Your task to perform on an android device: Go to privacy settings Image 0: 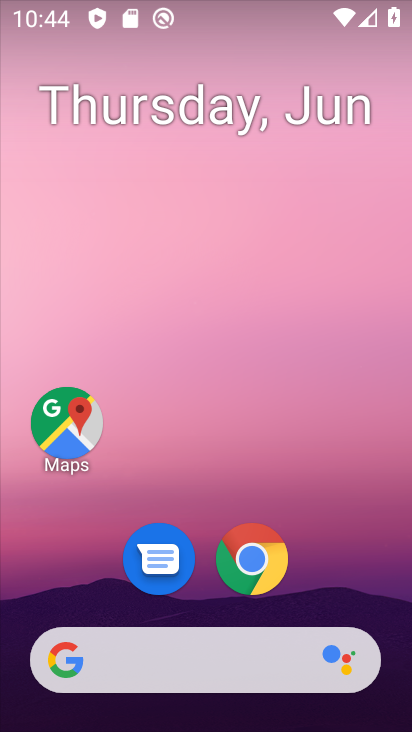
Step 0: click (279, 575)
Your task to perform on an android device: Go to privacy settings Image 1: 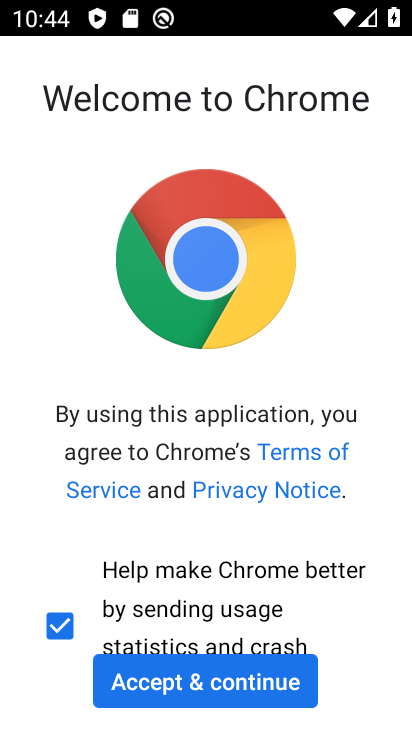
Step 1: click (230, 682)
Your task to perform on an android device: Go to privacy settings Image 2: 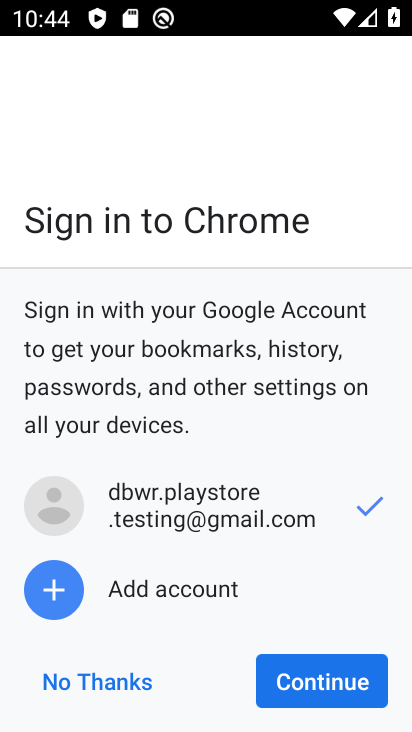
Step 2: click (365, 701)
Your task to perform on an android device: Go to privacy settings Image 3: 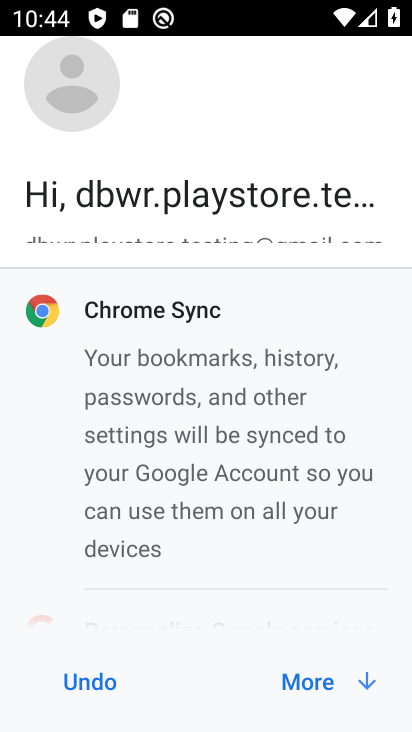
Step 3: click (351, 690)
Your task to perform on an android device: Go to privacy settings Image 4: 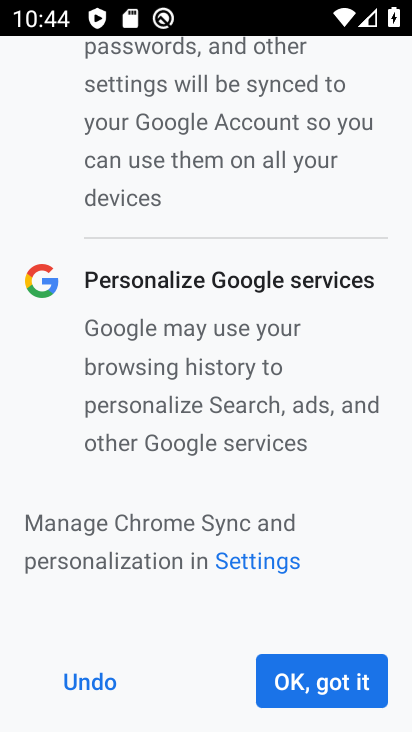
Step 4: click (334, 689)
Your task to perform on an android device: Go to privacy settings Image 5: 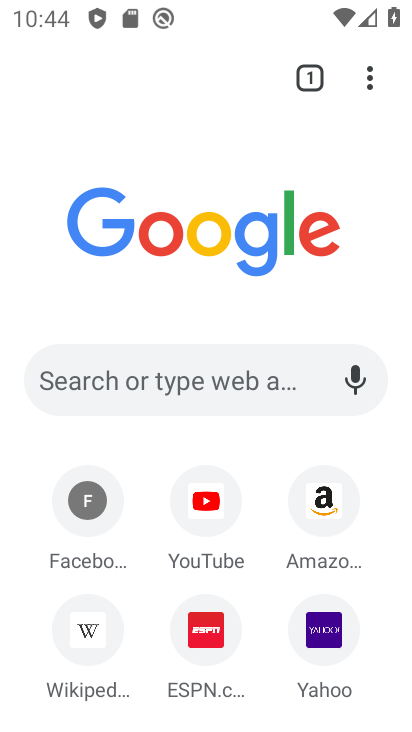
Step 5: drag from (381, 79) to (261, 641)
Your task to perform on an android device: Go to privacy settings Image 6: 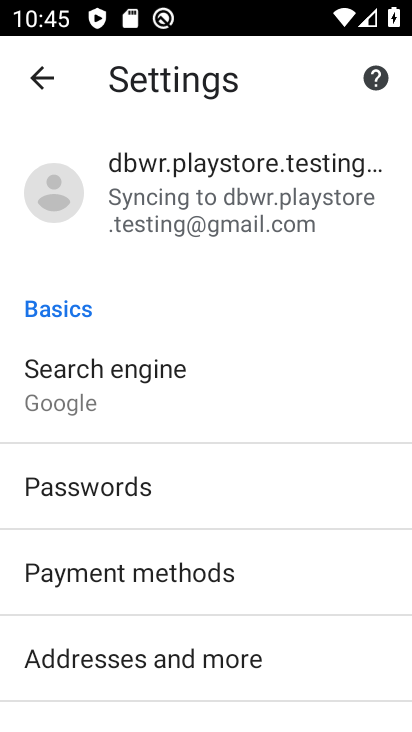
Step 6: drag from (252, 642) to (348, 279)
Your task to perform on an android device: Go to privacy settings Image 7: 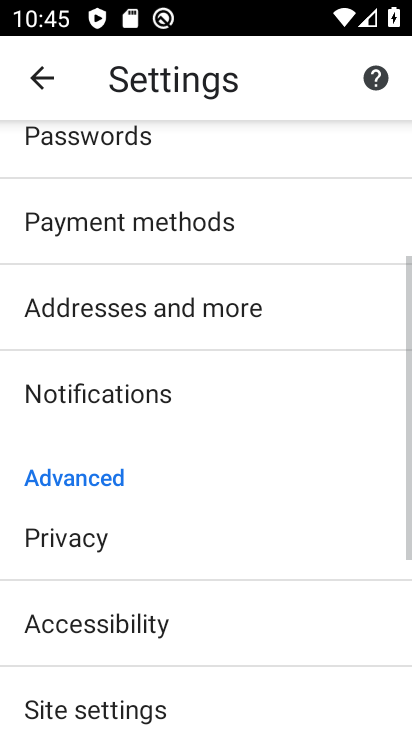
Step 7: click (194, 548)
Your task to perform on an android device: Go to privacy settings Image 8: 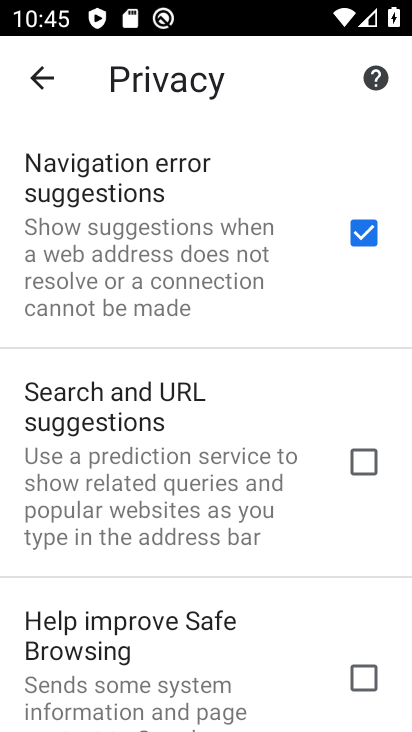
Step 8: task complete